Your task to perform on an android device: turn off data saver in the chrome app Image 0: 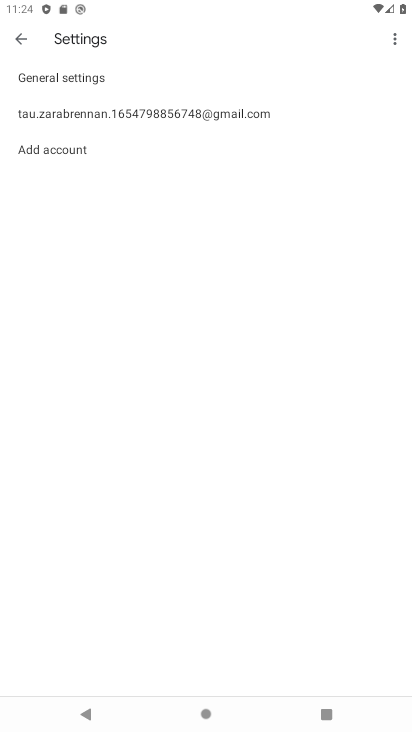
Step 0: press home button
Your task to perform on an android device: turn off data saver in the chrome app Image 1: 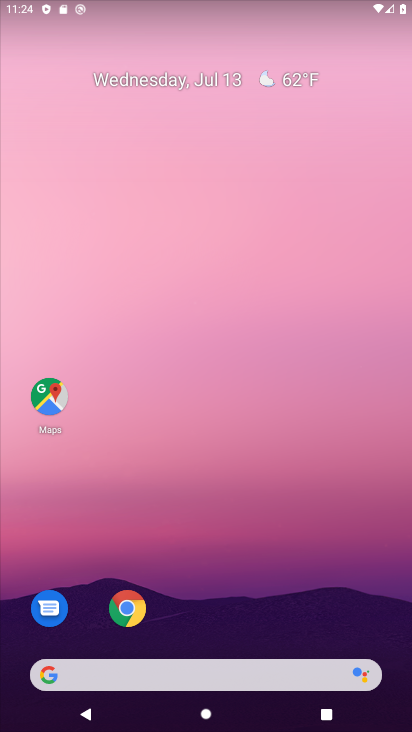
Step 1: click (130, 611)
Your task to perform on an android device: turn off data saver in the chrome app Image 2: 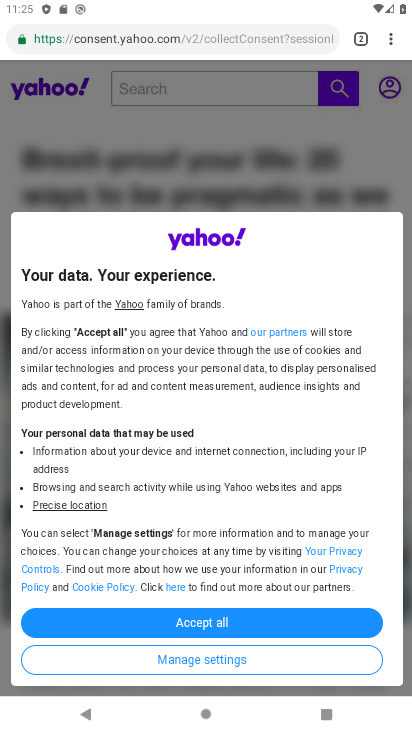
Step 2: click (391, 40)
Your task to perform on an android device: turn off data saver in the chrome app Image 3: 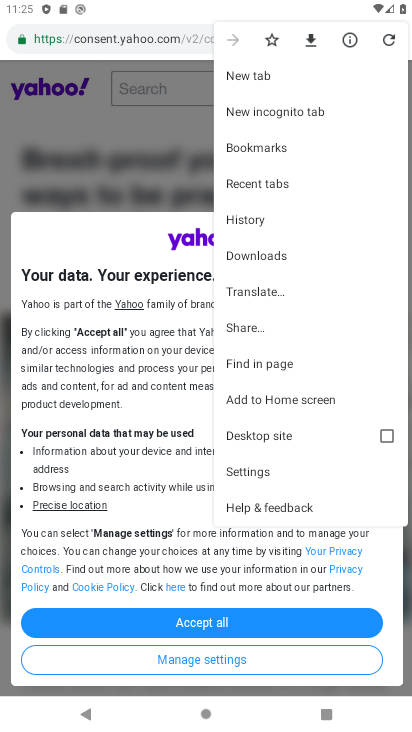
Step 3: click (248, 470)
Your task to perform on an android device: turn off data saver in the chrome app Image 4: 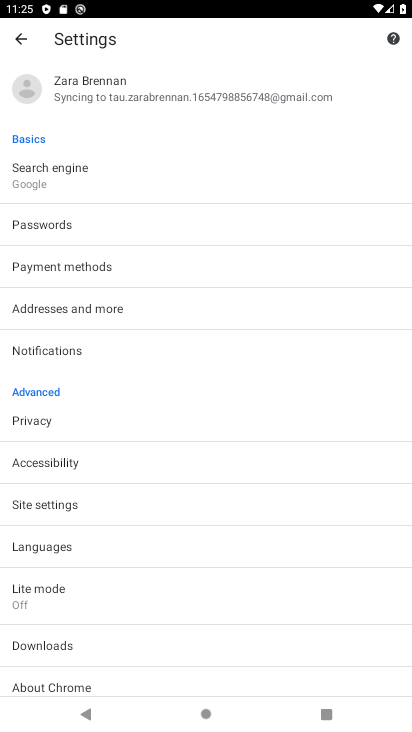
Step 4: click (43, 583)
Your task to perform on an android device: turn off data saver in the chrome app Image 5: 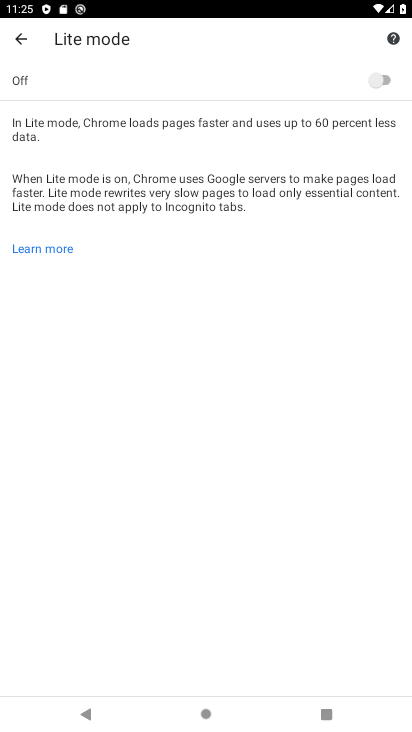
Step 5: task complete